Your task to perform on an android device: turn on airplane mode Image 0: 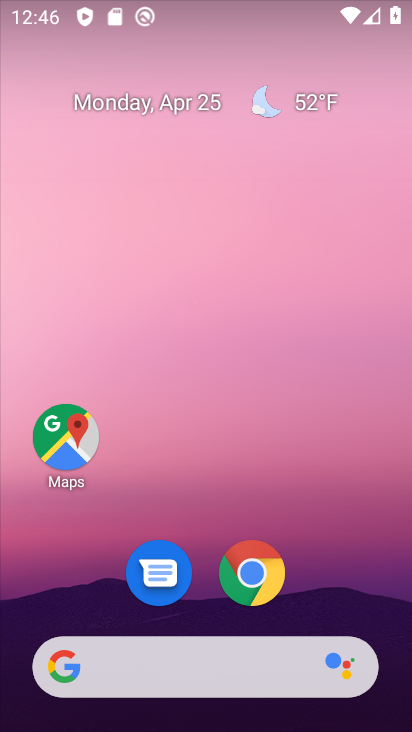
Step 0: drag from (339, 34) to (369, 595)
Your task to perform on an android device: turn on airplane mode Image 1: 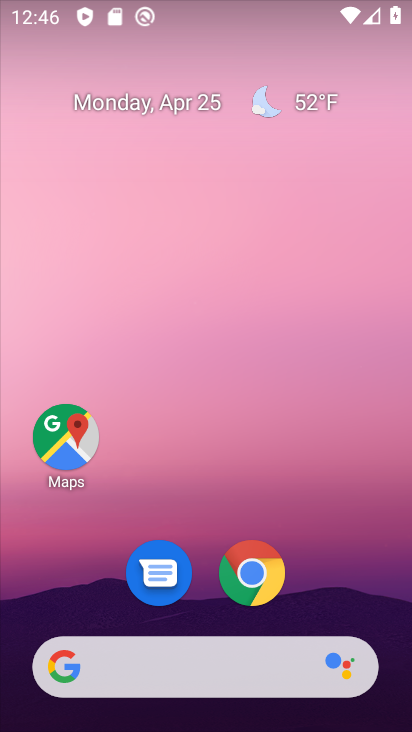
Step 1: drag from (365, 10) to (307, 704)
Your task to perform on an android device: turn on airplane mode Image 2: 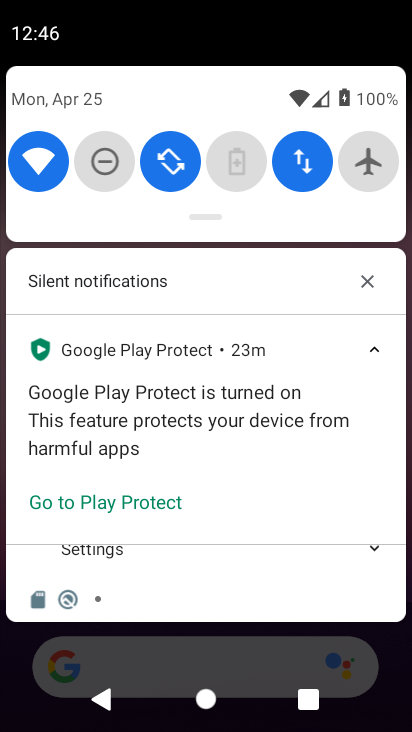
Step 2: click (367, 169)
Your task to perform on an android device: turn on airplane mode Image 3: 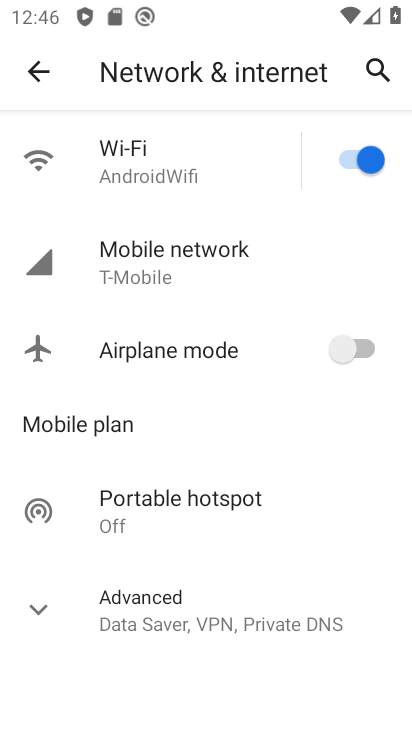
Step 3: click (362, 351)
Your task to perform on an android device: turn on airplane mode Image 4: 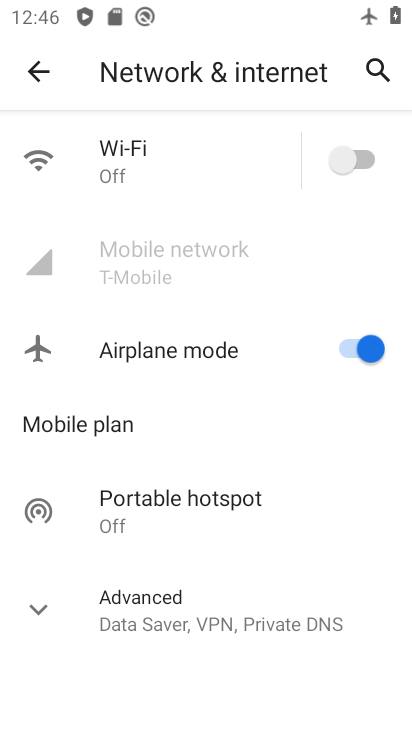
Step 4: task complete